Your task to perform on an android device: Search for Italian restaurants on Maps Image 0: 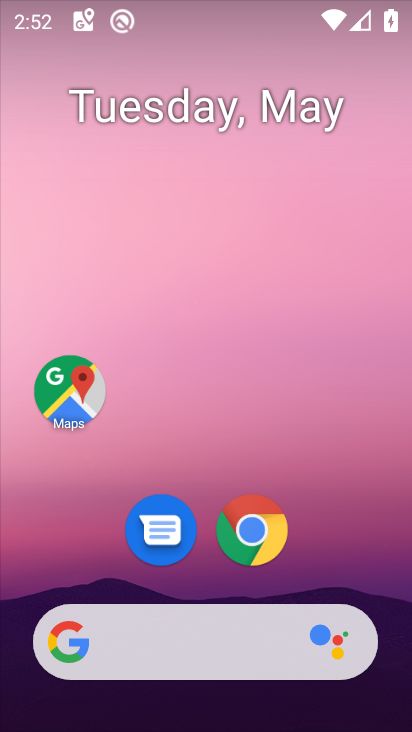
Step 0: press home button
Your task to perform on an android device: Search for Italian restaurants on Maps Image 1: 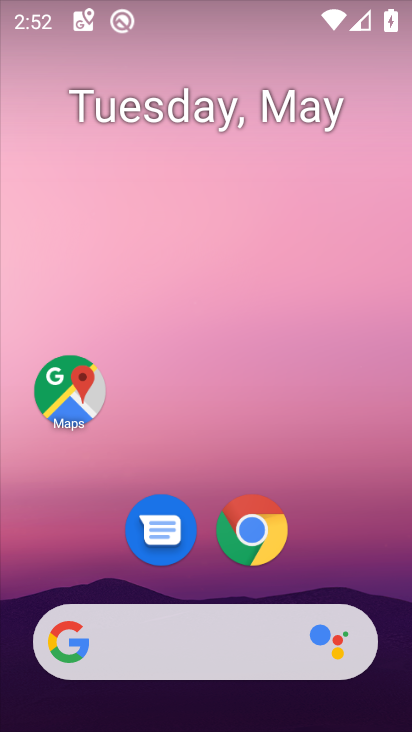
Step 1: drag from (56, 559) to (249, 107)
Your task to perform on an android device: Search for Italian restaurants on Maps Image 2: 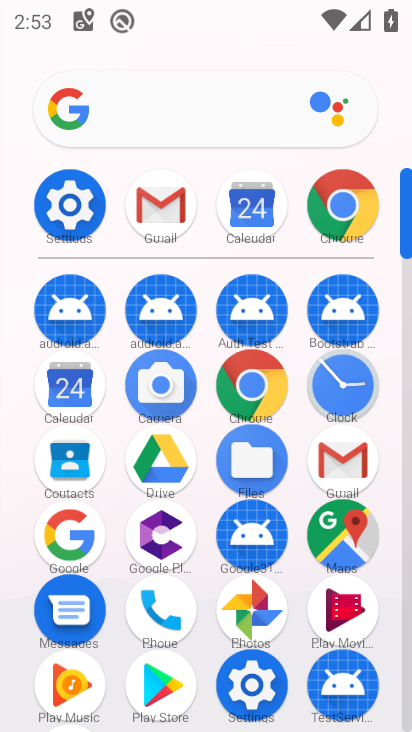
Step 2: click (332, 541)
Your task to perform on an android device: Search for Italian restaurants on Maps Image 3: 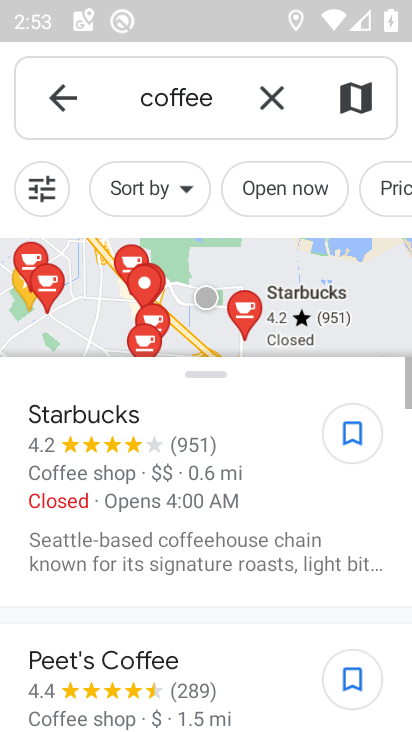
Step 3: click (277, 96)
Your task to perform on an android device: Search for Italian restaurants on Maps Image 4: 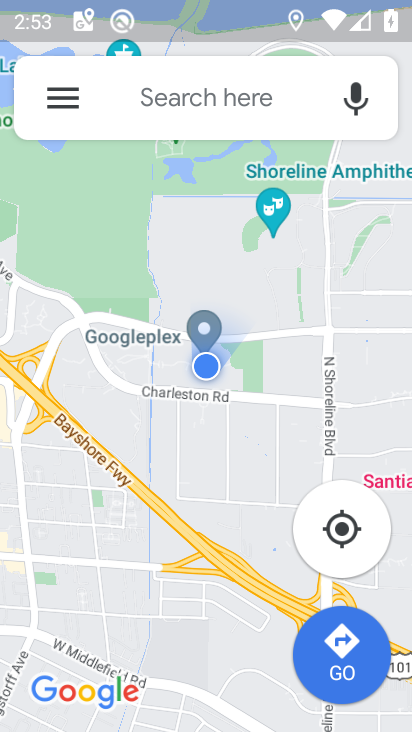
Step 4: click (220, 81)
Your task to perform on an android device: Search for Italian restaurants on Maps Image 5: 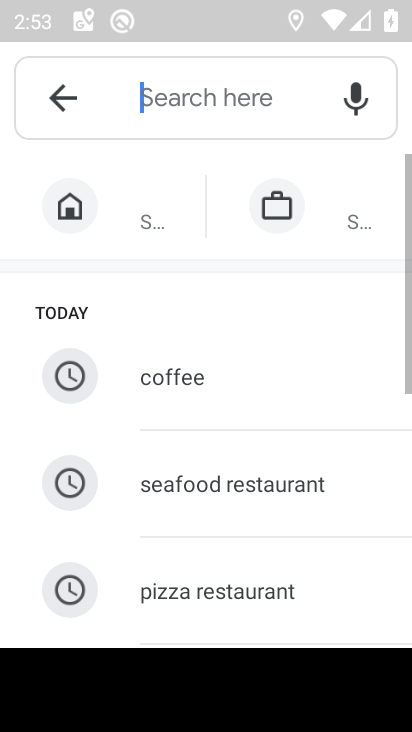
Step 5: drag from (104, 585) to (249, 215)
Your task to perform on an android device: Search for Italian restaurants on Maps Image 6: 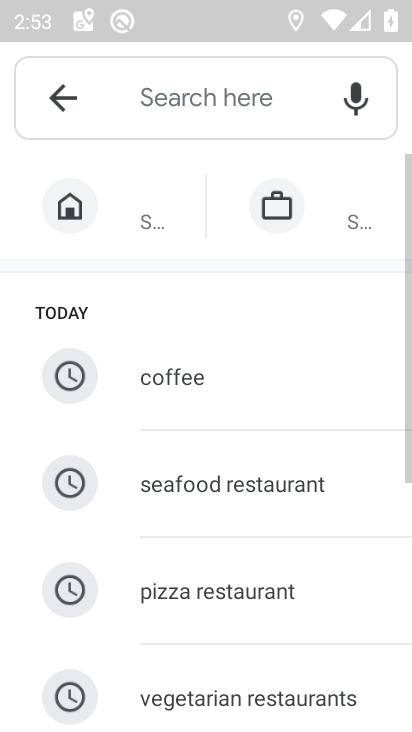
Step 6: click (268, 204)
Your task to perform on an android device: Search for Italian restaurants on Maps Image 7: 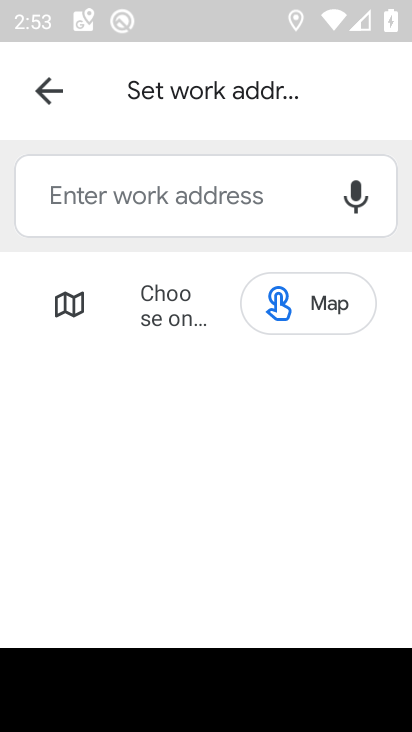
Step 7: click (44, 88)
Your task to perform on an android device: Search for Italian restaurants on Maps Image 8: 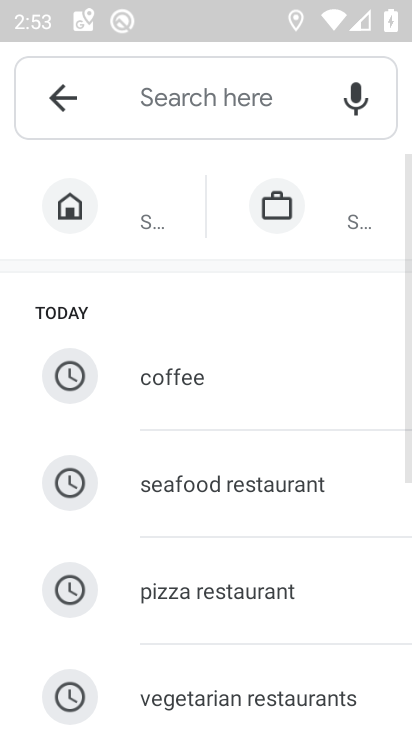
Step 8: drag from (74, 674) to (326, 97)
Your task to perform on an android device: Search for Italian restaurants on Maps Image 9: 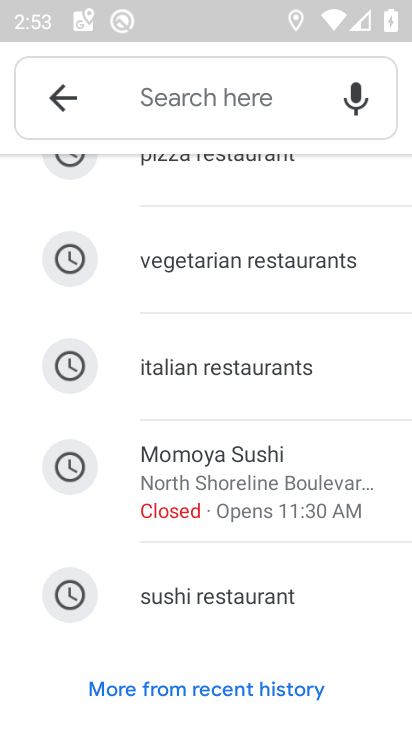
Step 9: click (199, 370)
Your task to perform on an android device: Search for Italian restaurants on Maps Image 10: 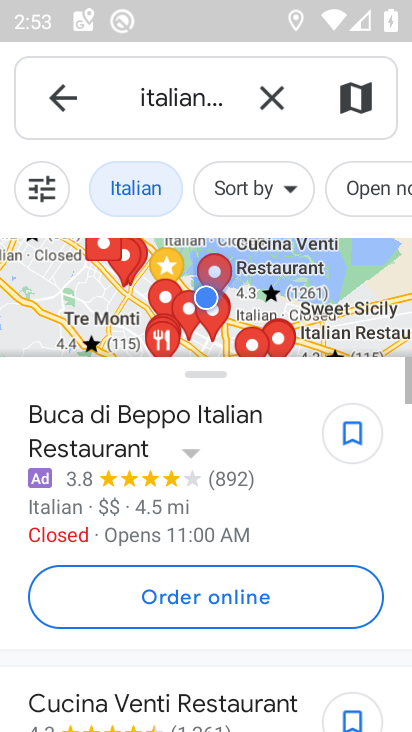
Step 10: task complete